Your task to perform on an android device: refresh tabs in the chrome app Image 0: 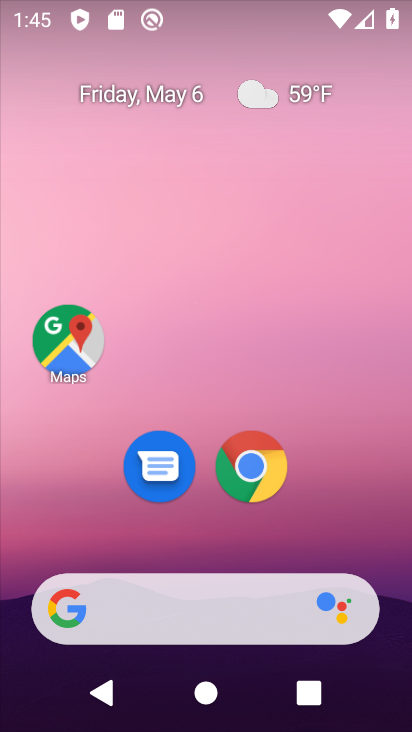
Step 0: click (249, 463)
Your task to perform on an android device: refresh tabs in the chrome app Image 1: 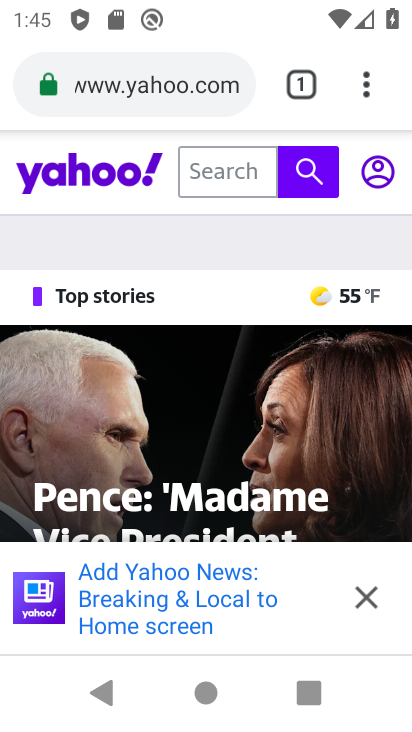
Step 1: click (364, 81)
Your task to perform on an android device: refresh tabs in the chrome app Image 2: 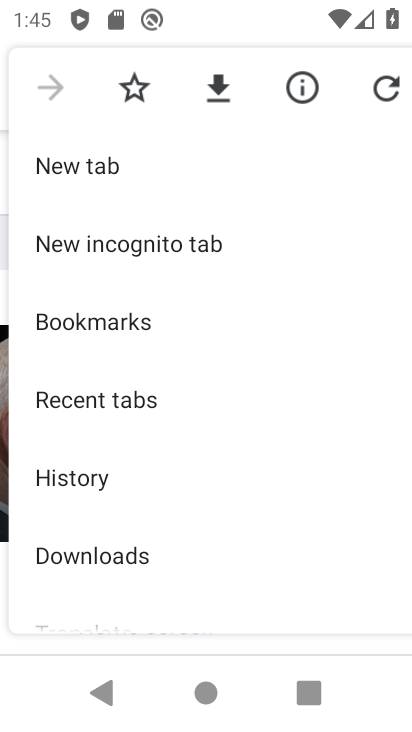
Step 2: click (383, 85)
Your task to perform on an android device: refresh tabs in the chrome app Image 3: 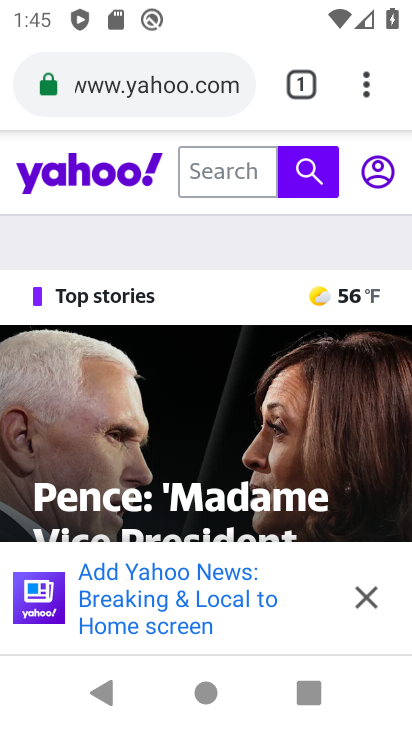
Step 3: task complete